Your task to perform on an android device: set the timer Image 0: 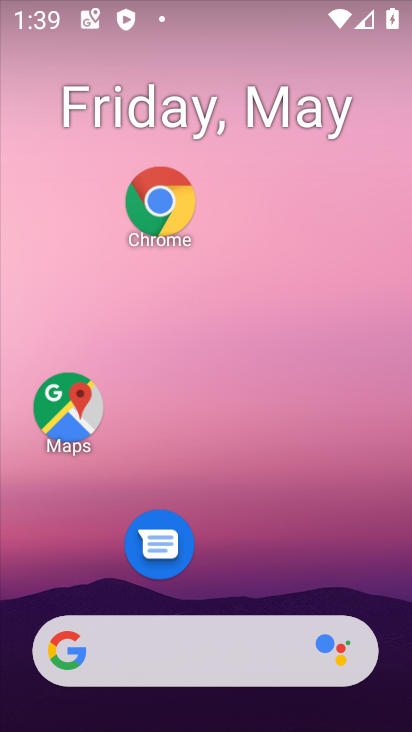
Step 0: drag from (245, 602) to (198, 258)
Your task to perform on an android device: set the timer Image 1: 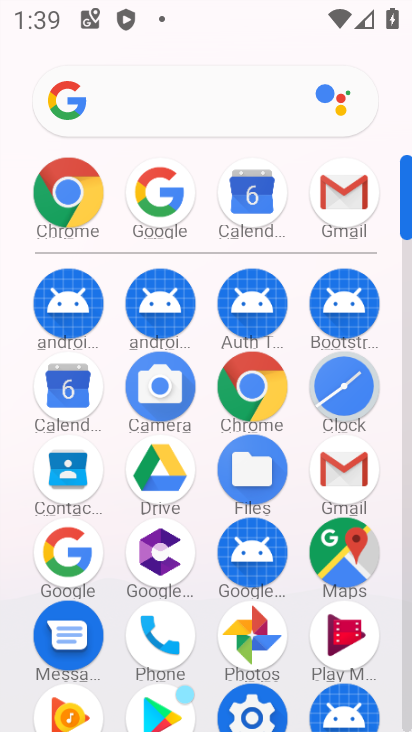
Step 1: drag from (198, 255) to (175, 119)
Your task to perform on an android device: set the timer Image 2: 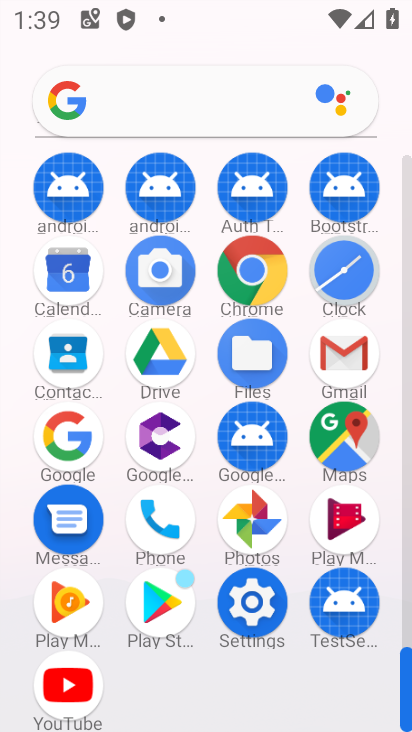
Step 2: click (357, 286)
Your task to perform on an android device: set the timer Image 3: 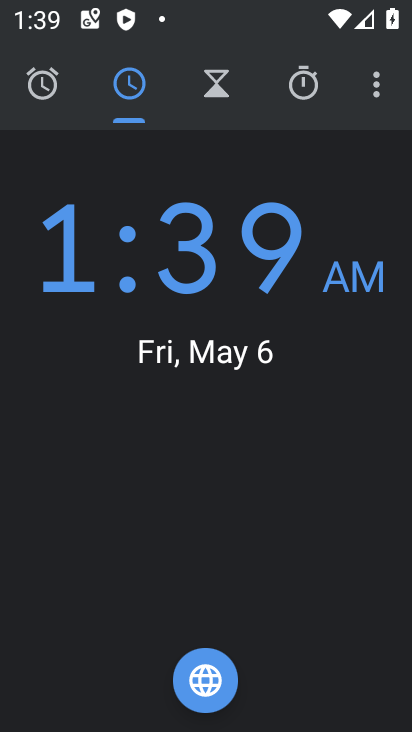
Step 3: click (284, 84)
Your task to perform on an android device: set the timer Image 4: 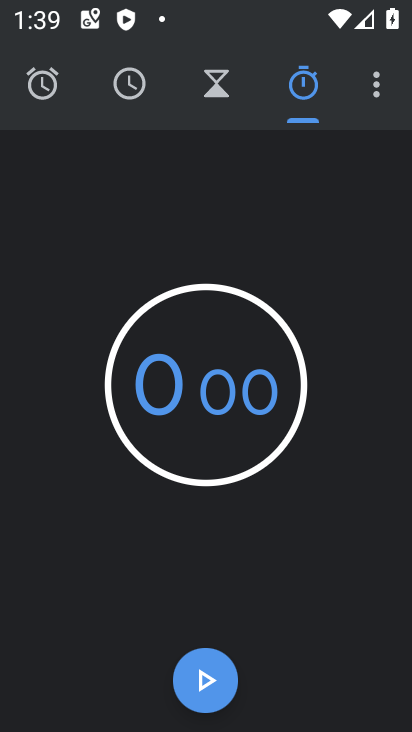
Step 4: click (230, 115)
Your task to perform on an android device: set the timer Image 5: 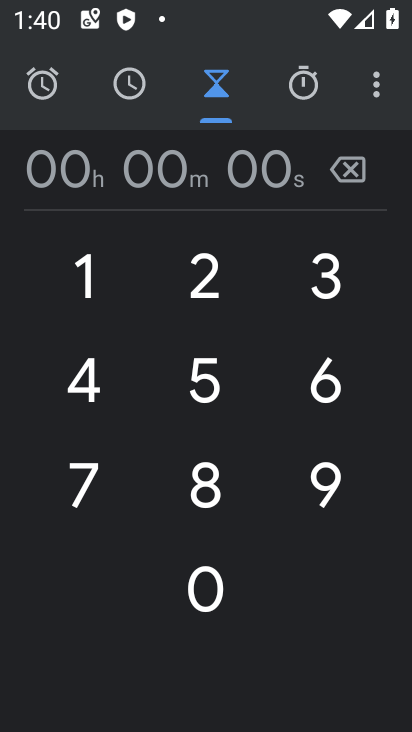
Step 5: click (232, 402)
Your task to perform on an android device: set the timer Image 6: 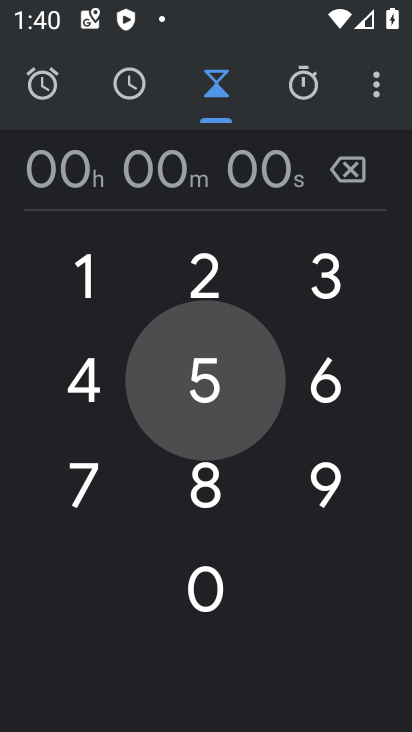
Step 6: click (232, 402)
Your task to perform on an android device: set the timer Image 7: 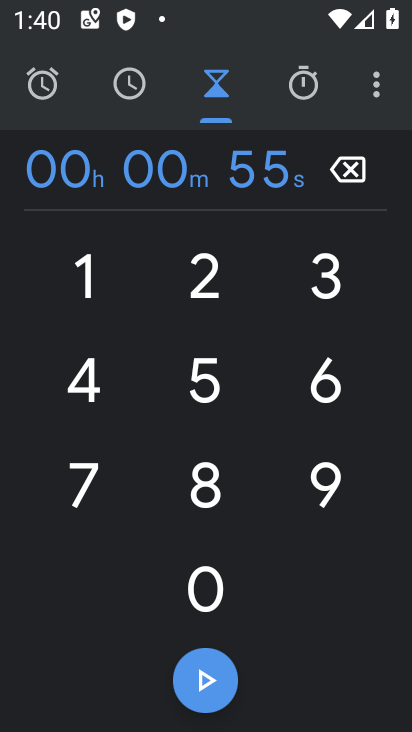
Step 7: click (232, 402)
Your task to perform on an android device: set the timer Image 8: 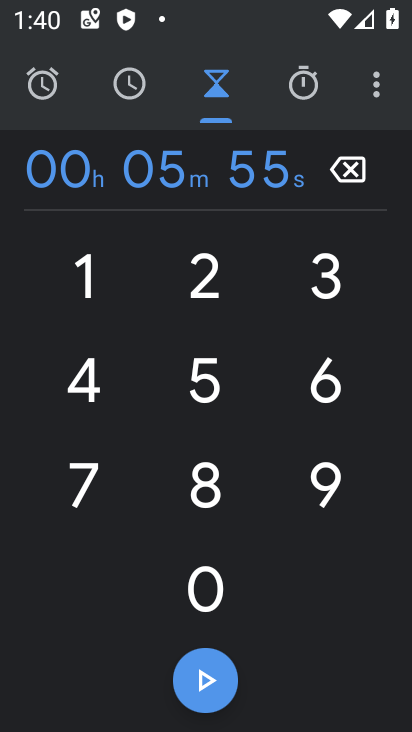
Step 8: click (232, 402)
Your task to perform on an android device: set the timer Image 9: 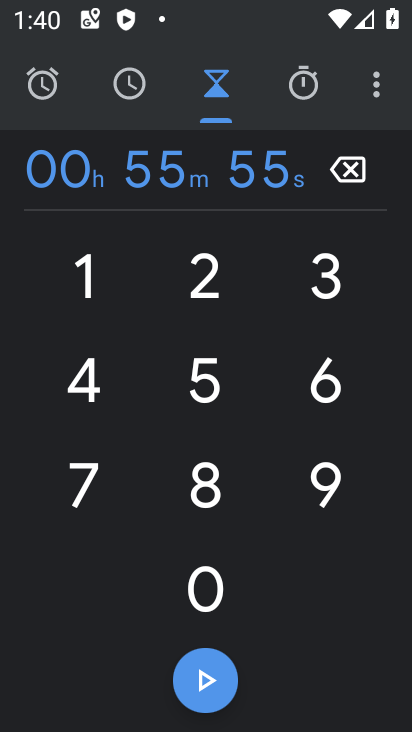
Step 9: click (202, 704)
Your task to perform on an android device: set the timer Image 10: 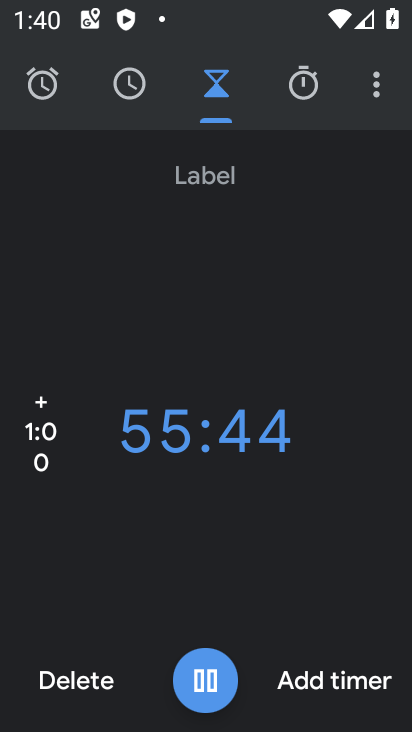
Step 10: task complete